Your task to perform on an android device: set default search engine in the chrome app Image 0: 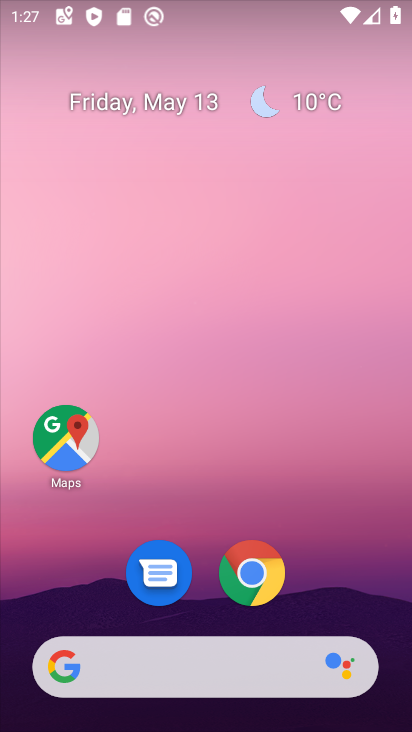
Step 0: drag from (328, 492) to (251, 13)
Your task to perform on an android device: set default search engine in the chrome app Image 1: 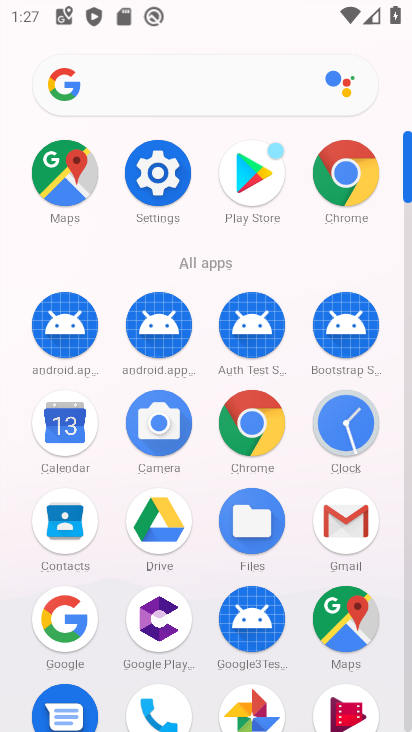
Step 1: drag from (2, 498) to (15, 226)
Your task to perform on an android device: set default search engine in the chrome app Image 2: 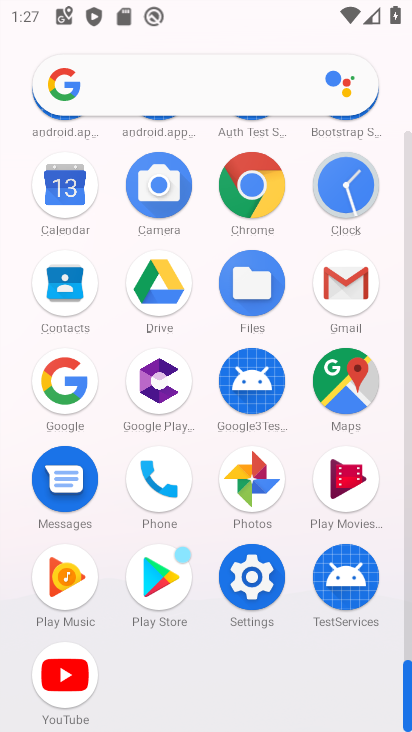
Step 2: drag from (11, 589) to (31, 238)
Your task to perform on an android device: set default search engine in the chrome app Image 3: 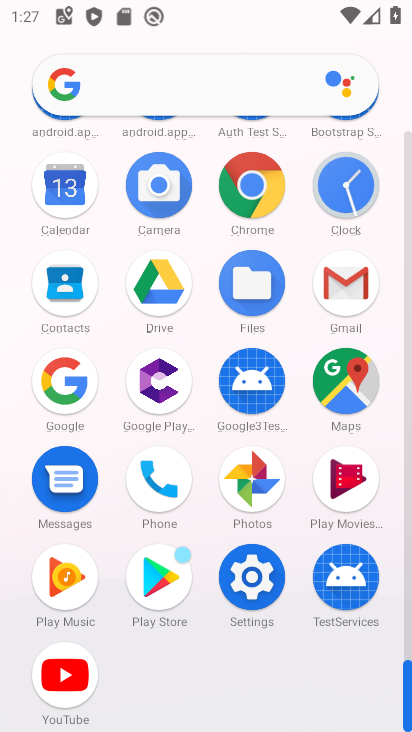
Step 3: click (247, 182)
Your task to perform on an android device: set default search engine in the chrome app Image 4: 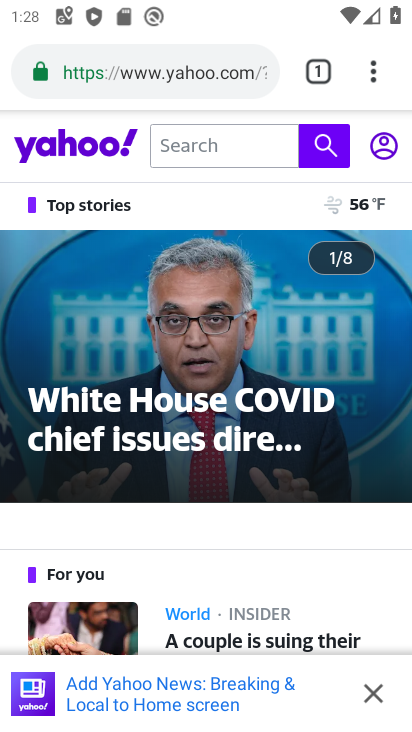
Step 4: drag from (375, 70) to (112, 561)
Your task to perform on an android device: set default search engine in the chrome app Image 5: 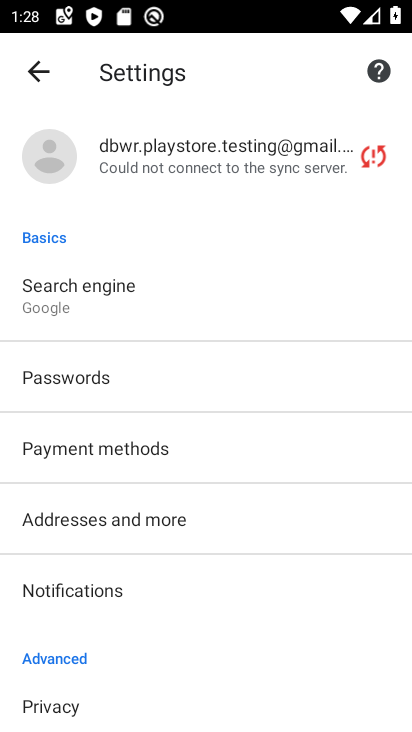
Step 5: click (112, 287)
Your task to perform on an android device: set default search engine in the chrome app Image 6: 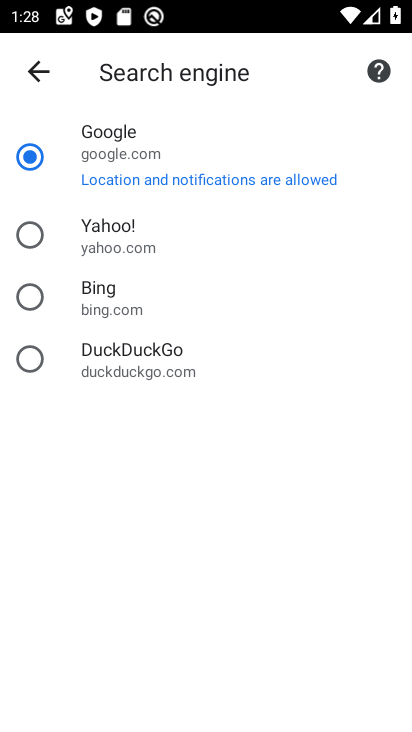
Step 6: click (114, 234)
Your task to perform on an android device: set default search engine in the chrome app Image 7: 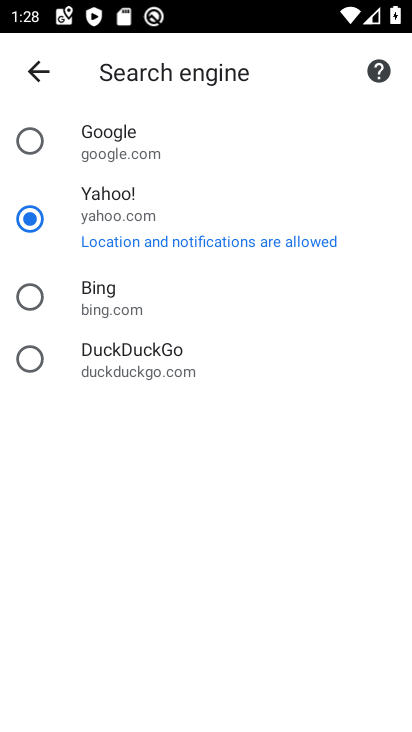
Step 7: click (41, 75)
Your task to perform on an android device: set default search engine in the chrome app Image 8: 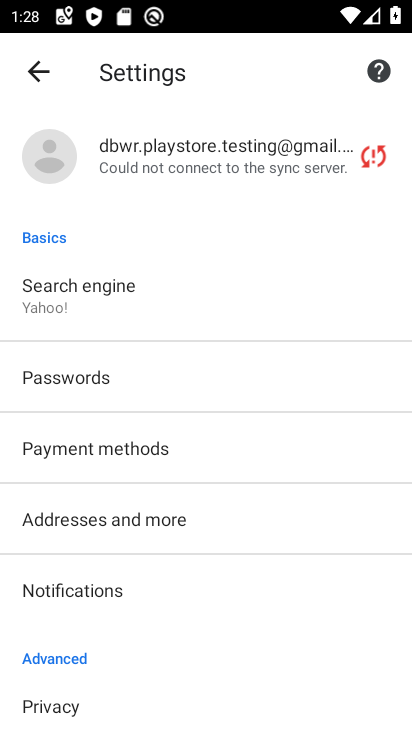
Step 8: task complete